Your task to perform on an android device: Go to battery settings Image 0: 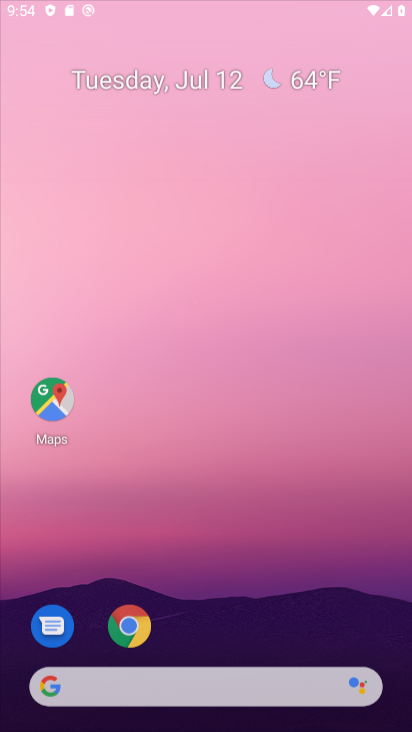
Step 0: click (261, 157)
Your task to perform on an android device: Go to battery settings Image 1: 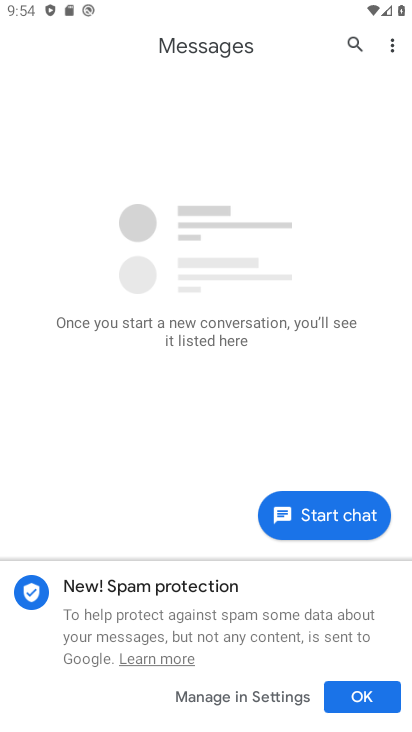
Step 1: press home button
Your task to perform on an android device: Go to battery settings Image 2: 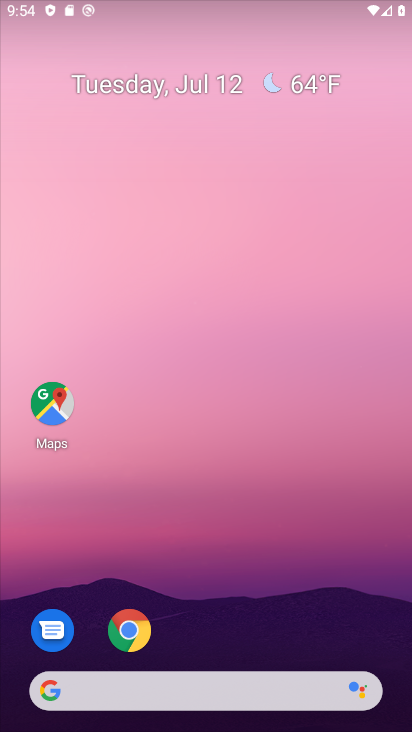
Step 2: drag from (253, 659) to (206, 21)
Your task to perform on an android device: Go to battery settings Image 3: 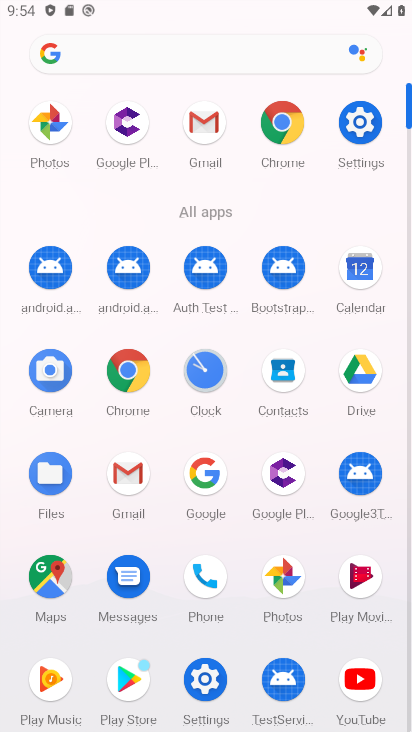
Step 3: click (378, 114)
Your task to perform on an android device: Go to battery settings Image 4: 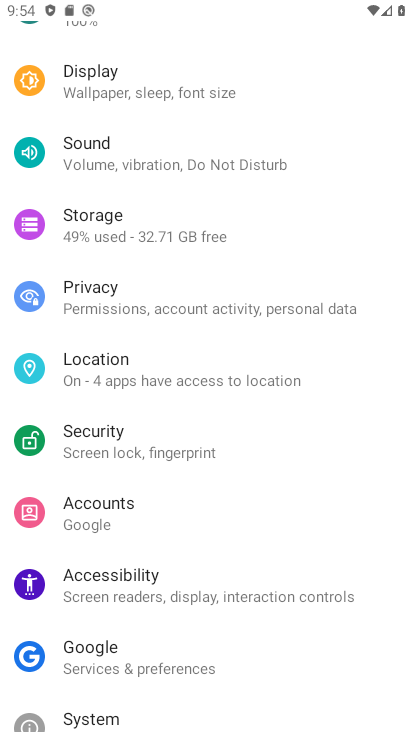
Step 4: drag from (104, 147) to (200, 569)
Your task to perform on an android device: Go to battery settings Image 5: 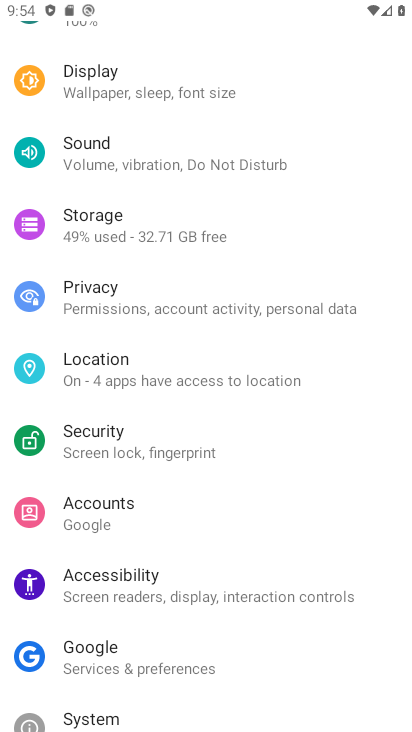
Step 5: drag from (273, 274) to (305, 669)
Your task to perform on an android device: Go to battery settings Image 6: 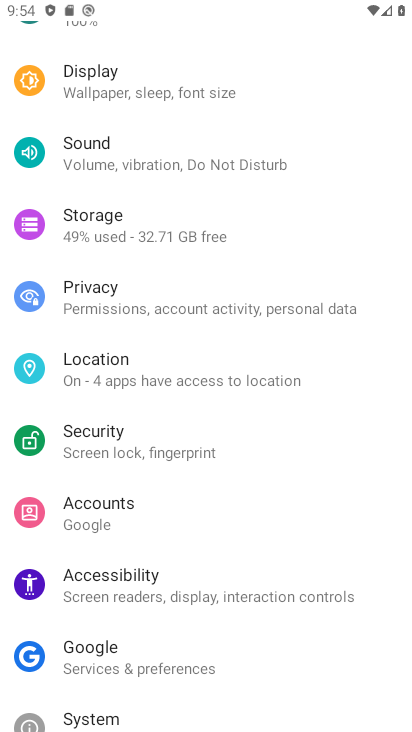
Step 6: drag from (215, 166) to (275, 593)
Your task to perform on an android device: Go to battery settings Image 7: 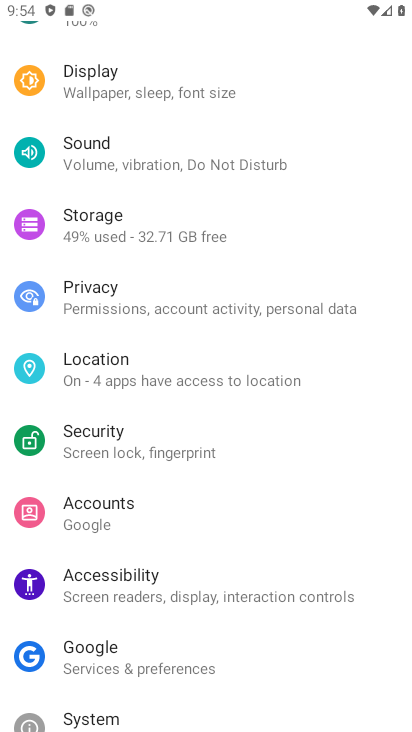
Step 7: drag from (240, 550) to (231, 80)
Your task to perform on an android device: Go to battery settings Image 8: 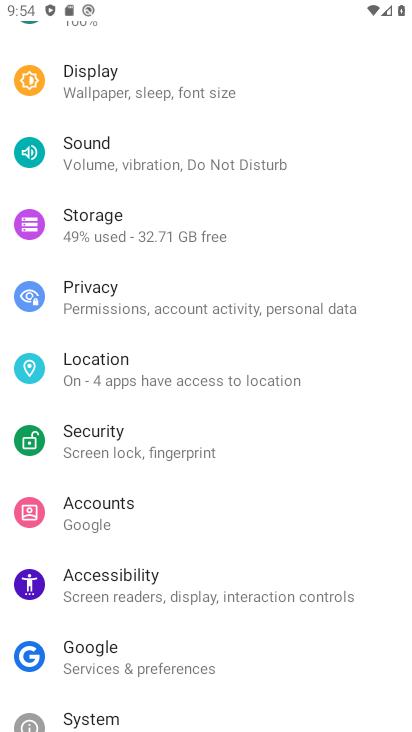
Step 8: drag from (226, 87) to (297, 634)
Your task to perform on an android device: Go to battery settings Image 9: 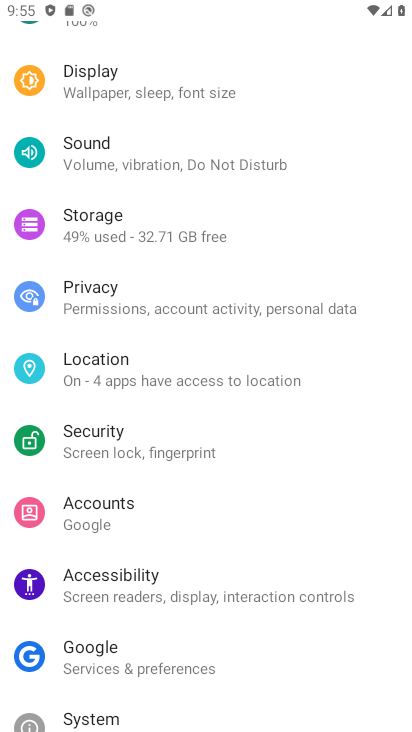
Step 9: drag from (143, 77) to (263, 647)
Your task to perform on an android device: Go to battery settings Image 10: 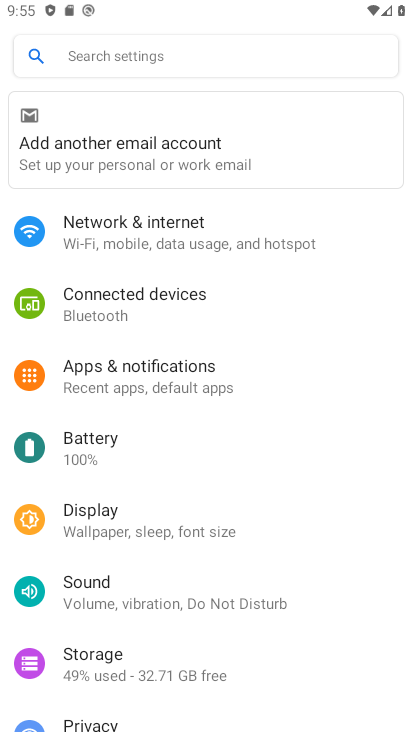
Step 10: click (103, 455)
Your task to perform on an android device: Go to battery settings Image 11: 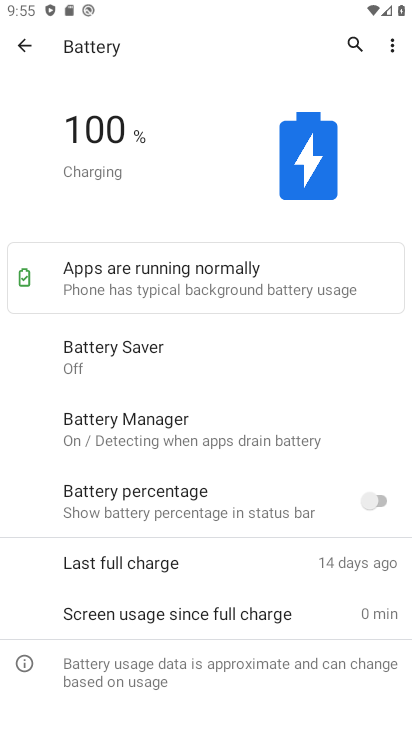
Step 11: task complete